Your task to perform on an android device: open app "AliExpress" Image 0: 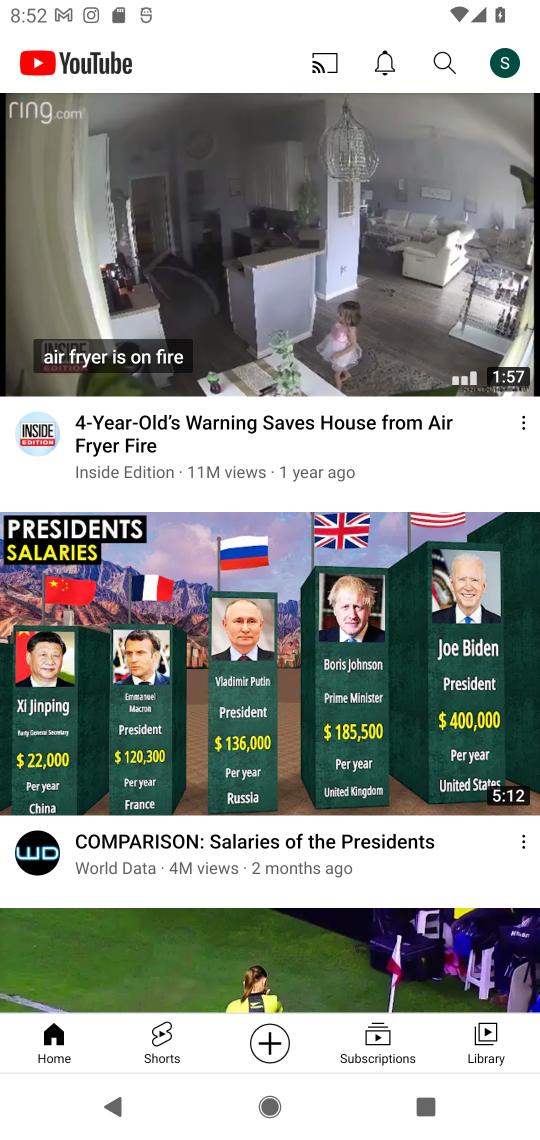
Step 0: press home button
Your task to perform on an android device: open app "AliExpress" Image 1: 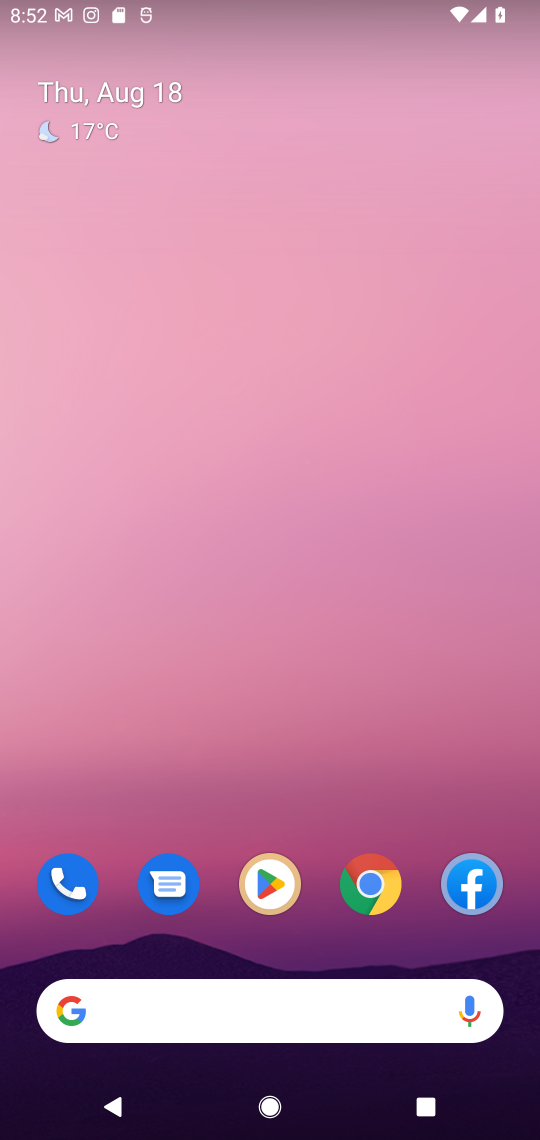
Step 1: drag from (236, 1022) to (283, 254)
Your task to perform on an android device: open app "AliExpress" Image 2: 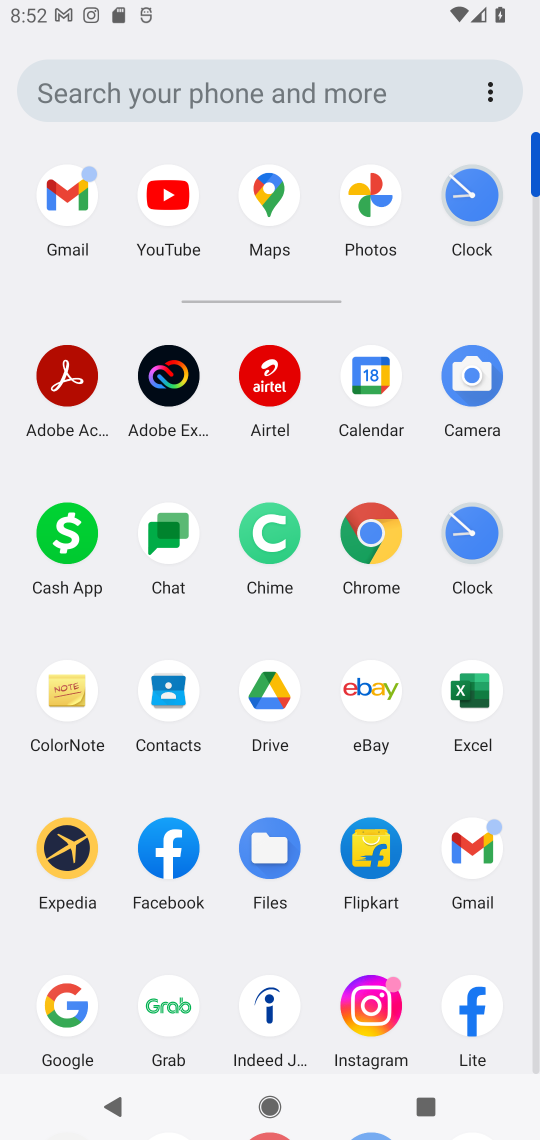
Step 2: drag from (309, 949) to (310, 321)
Your task to perform on an android device: open app "AliExpress" Image 3: 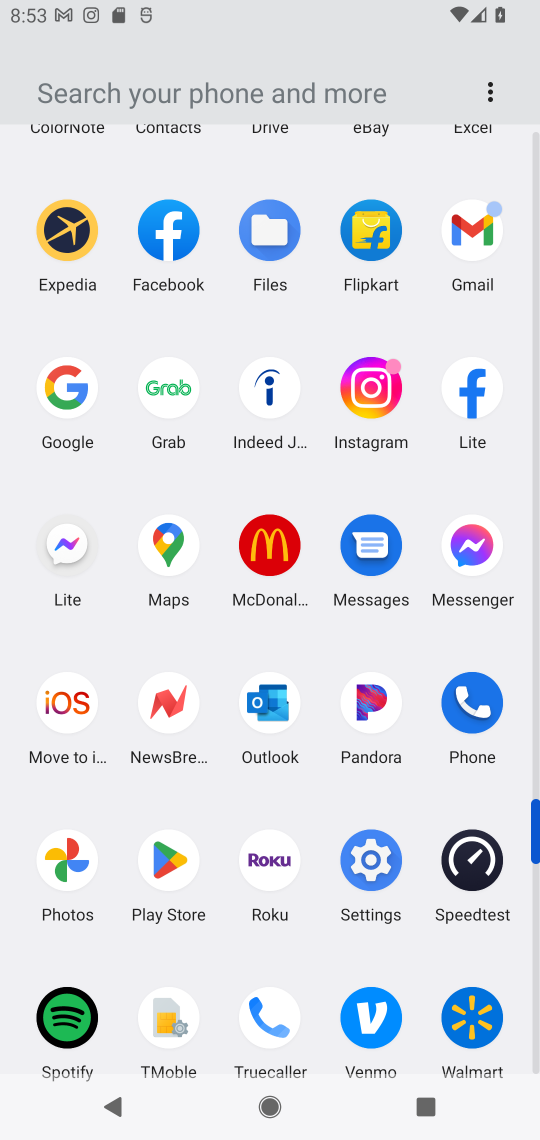
Step 3: click (172, 863)
Your task to perform on an android device: open app "AliExpress" Image 4: 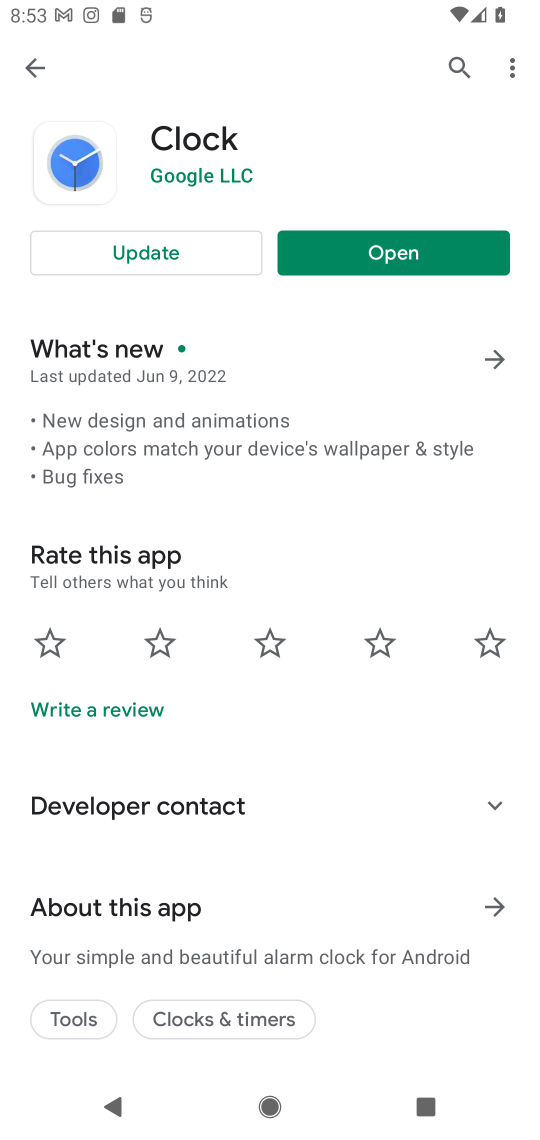
Step 4: press back button
Your task to perform on an android device: open app "AliExpress" Image 5: 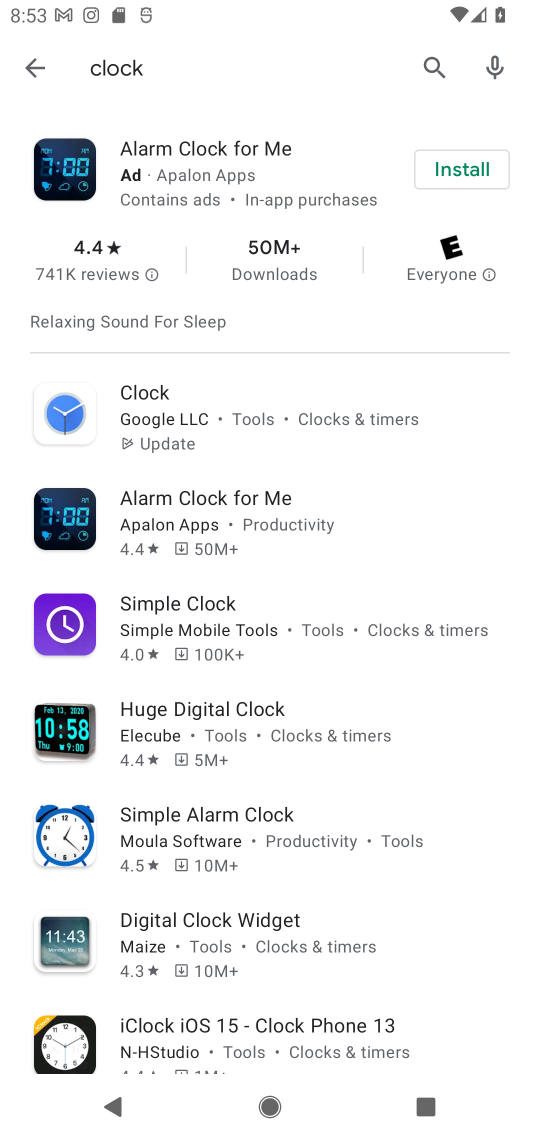
Step 5: press back button
Your task to perform on an android device: open app "AliExpress" Image 6: 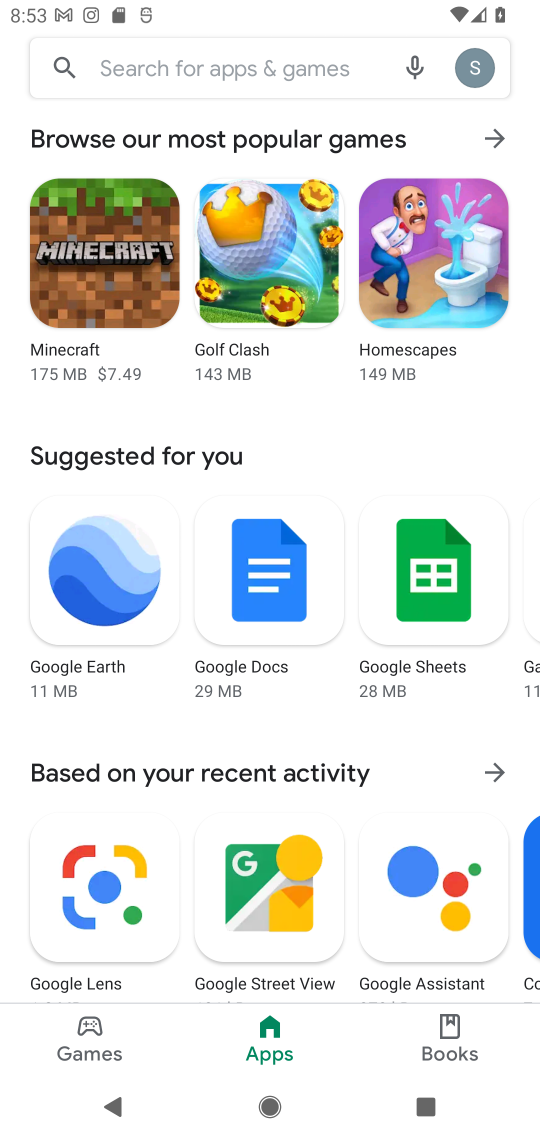
Step 6: click (197, 60)
Your task to perform on an android device: open app "AliExpress" Image 7: 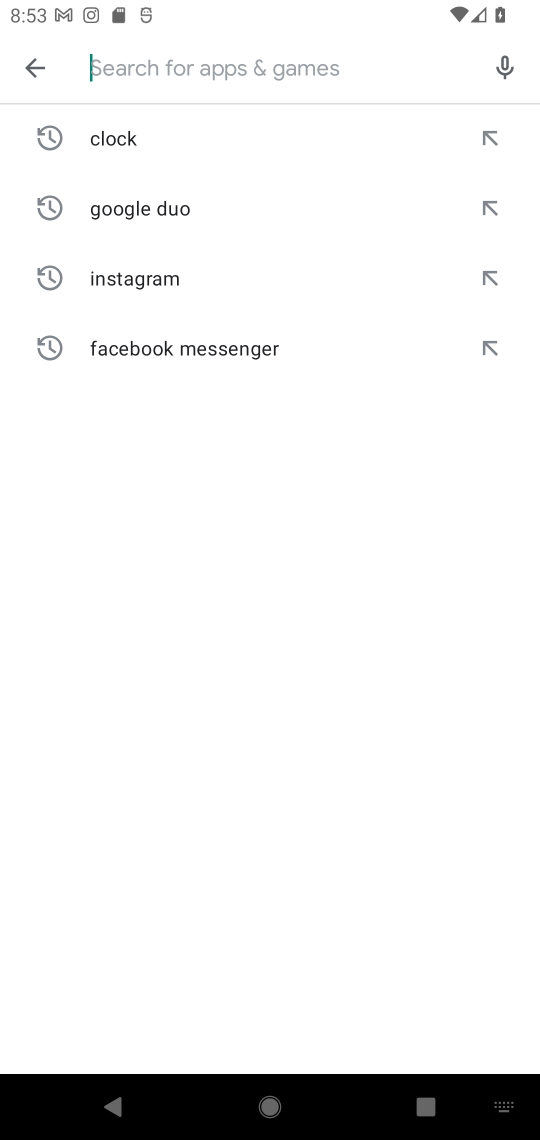
Step 7: type "AliExpress"
Your task to perform on an android device: open app "AliExpress" Image 8: 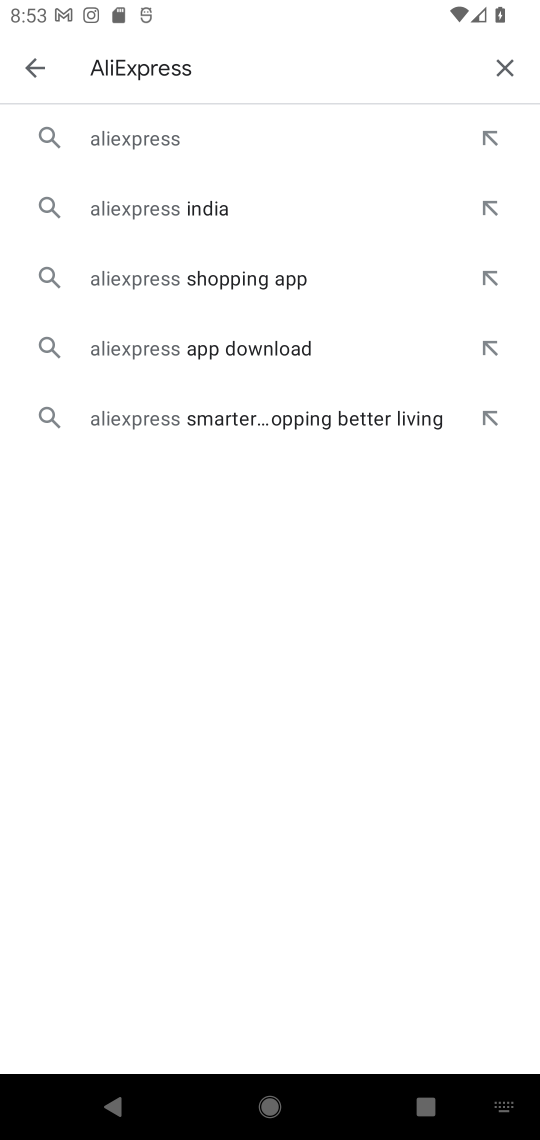
Step 8: click (161, 134)
Your task to perform on an android device: open app "AliExpress" Image 9: 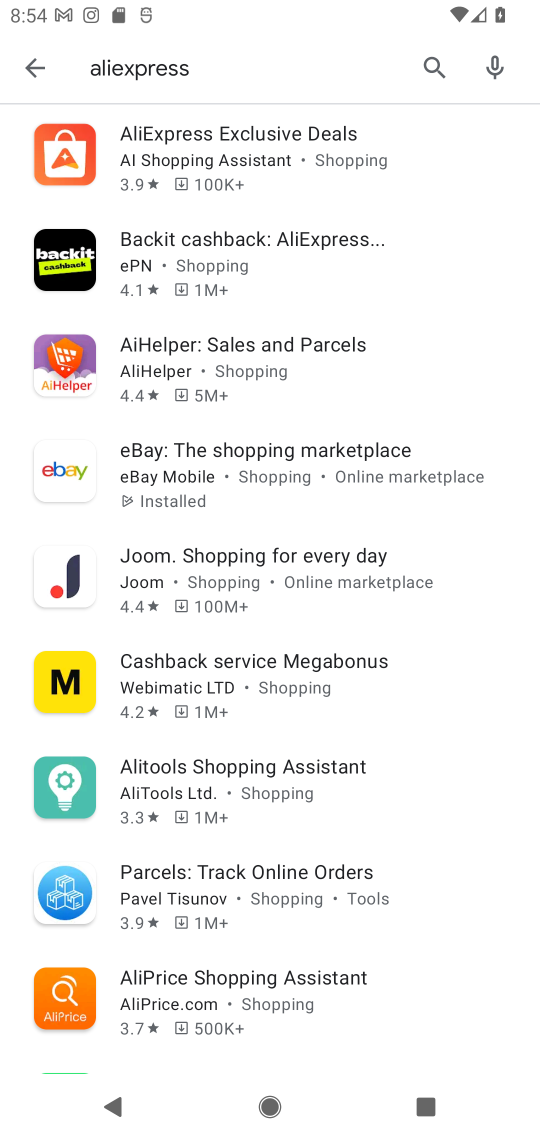
Step 9: click (274, 138)
Your task to perform on an android device: open app "AliExpress" Image 10: 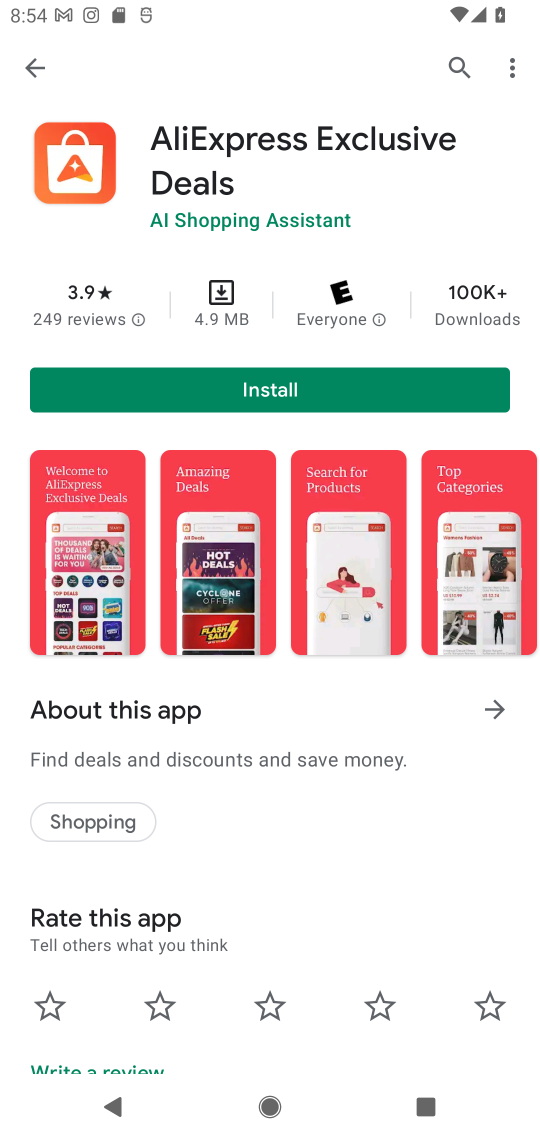
Step 10: task complete